Your task to perform on an android device: Do I have any events this weekend? Image 0: 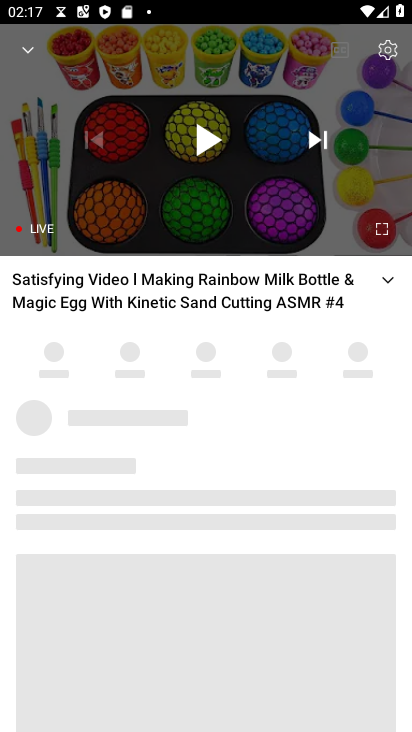
Step 0: press home button
Your task to perform on an android device: Do I have any events this weekend? Image 1: 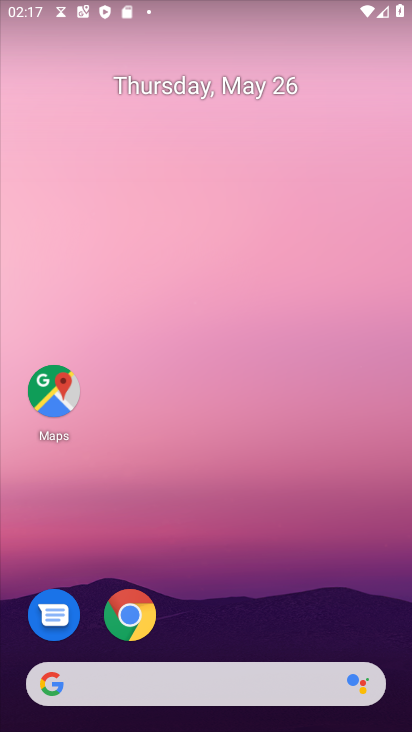
Step 1: drag from (210, 644) to (224, 47)
Your task to perform on an android device: Do I have any events this weekend? Image 2: 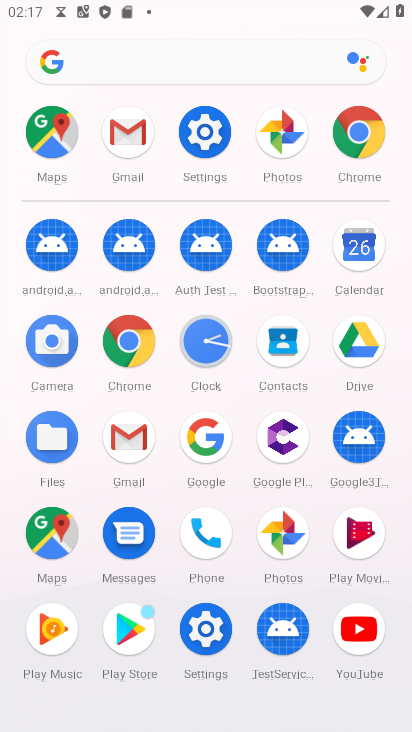
Step 2: click (359, 241)
Your task to perform on an android device: Do I have any events this weekend? Image 3: 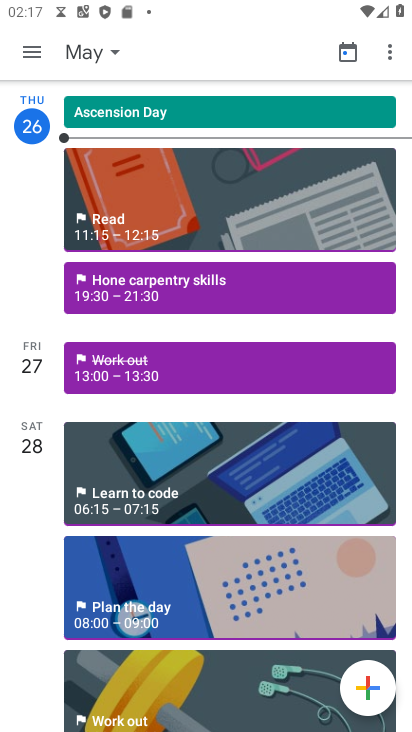
Step 3: task complete